Your task to perform on an android device: change notification settings in the gmail app Image 0: 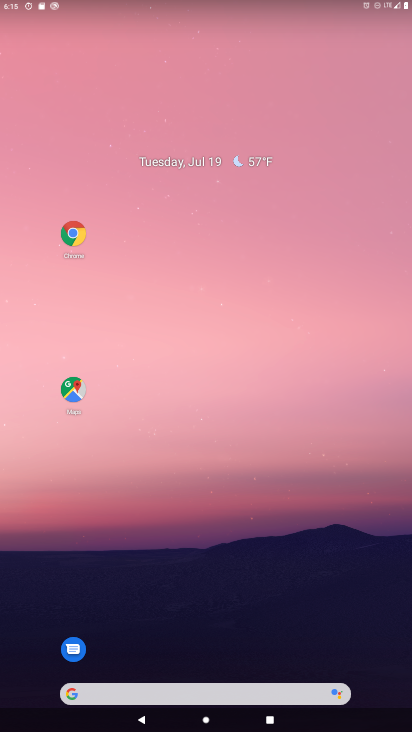
Step 0: drag from (169, 607) to (242, 45)
Your task to perform on an android device: change notification settings in the gmail app Image 1: 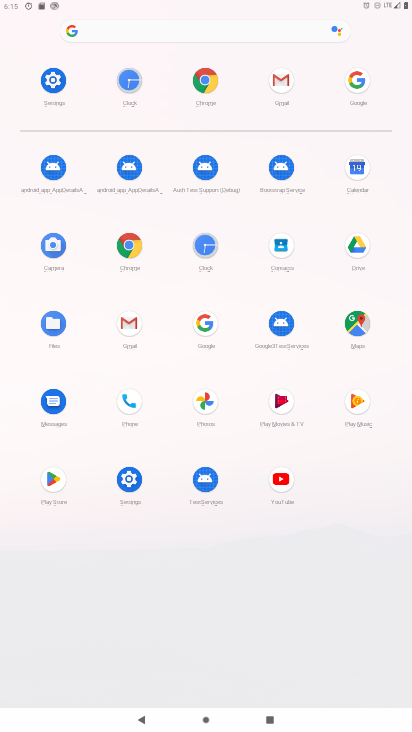
Step 1: click (129, 322)
Your task to perform on an android device: change notification settings in the gmail app Image 2: 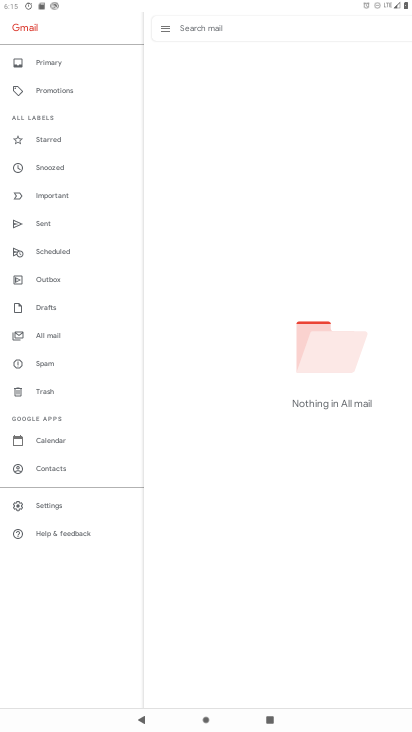
Step 2: click (48, 505)
Your task to perform on an android device: change notification settings in the gmail app Image 3: 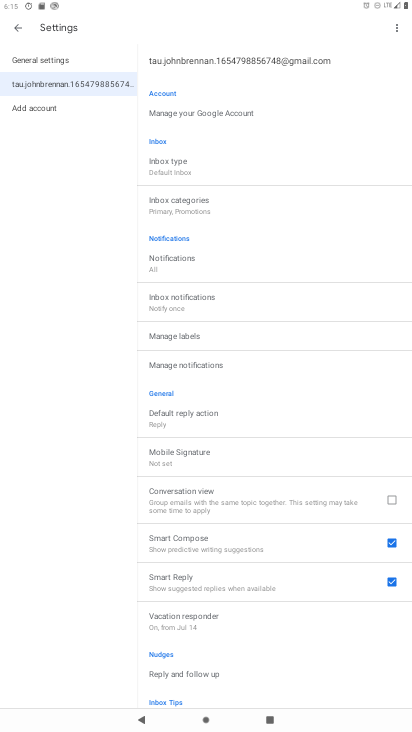
Step 3: click (188, 370)
Your task to perform on an android device: change notification settings in the gmail app Image 4: 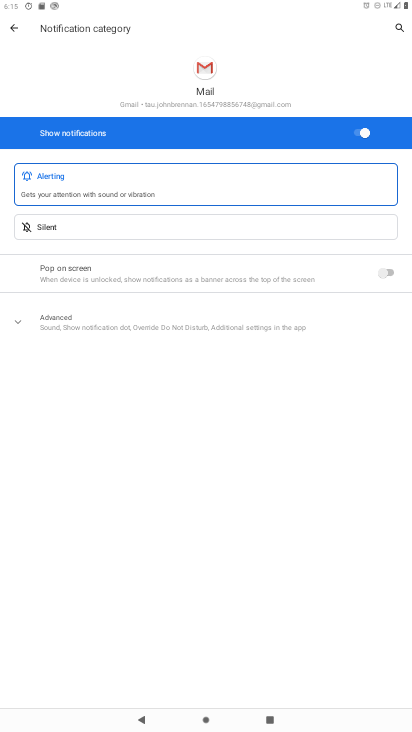
Step 4: click (362, 132)
Your task to perform on an android device: change notification settings in the gmail app Image 5: 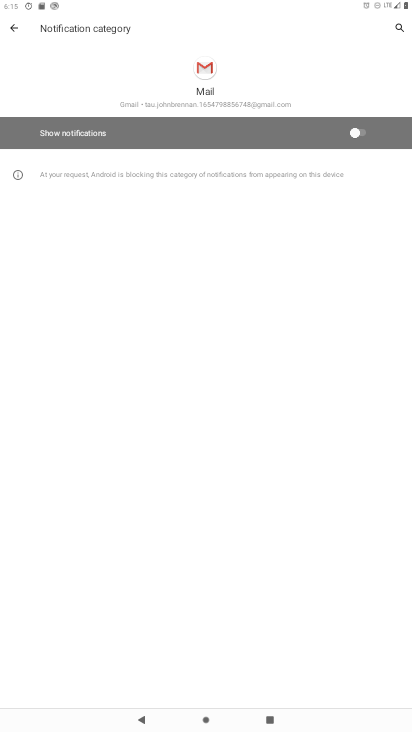
Step 5: task complete